Your task to perform on an android device: manage bookmarks in the chrome app Image 0: 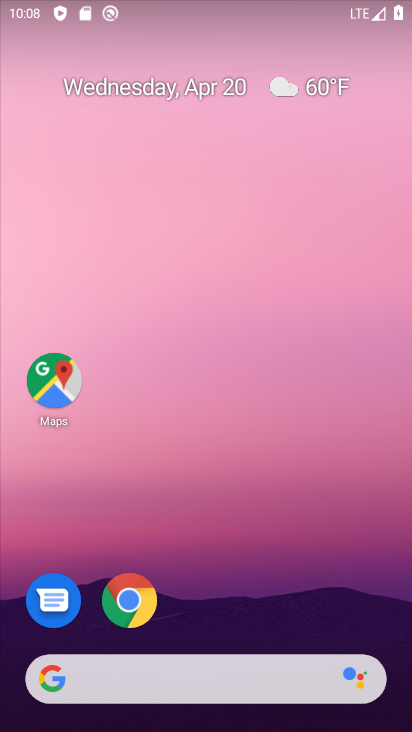
Step 0: click (137, 595)
Your task to perform on an android device: manage bookmarks in the chrome app Image 1: 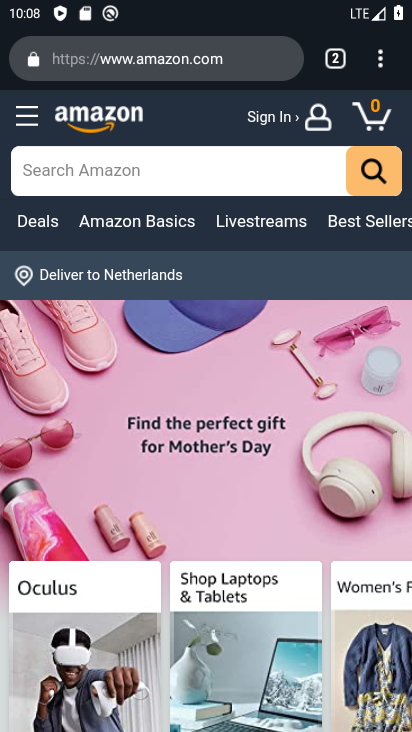
Step 1: click (382, 74)
Your task to perform on an android device: manage bookmarks in the chrome app Image 2: 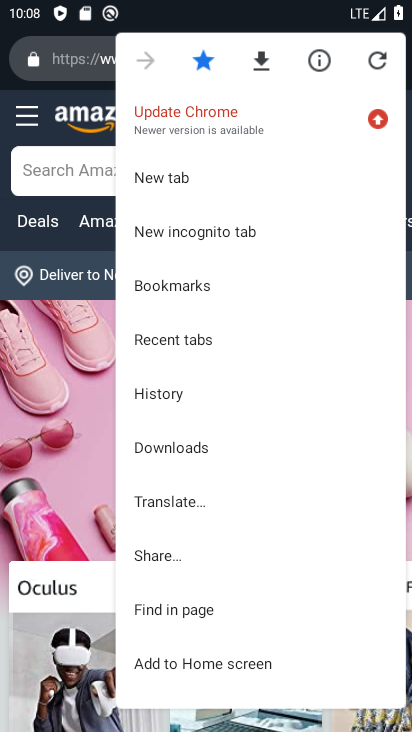
Step 2: click (206, 286)
Your task to perform on an android device: manage bookmarks in the chrome app Image 3: 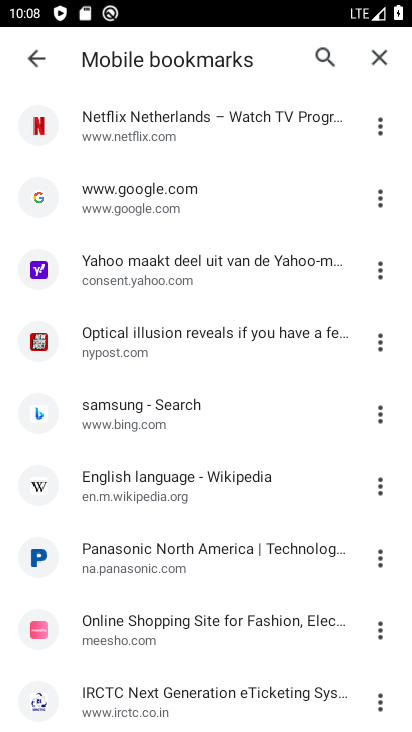
Step 3: click (381, 411)
Your task to perform on an android device: manage bookmarks in the chrome app Image 4: 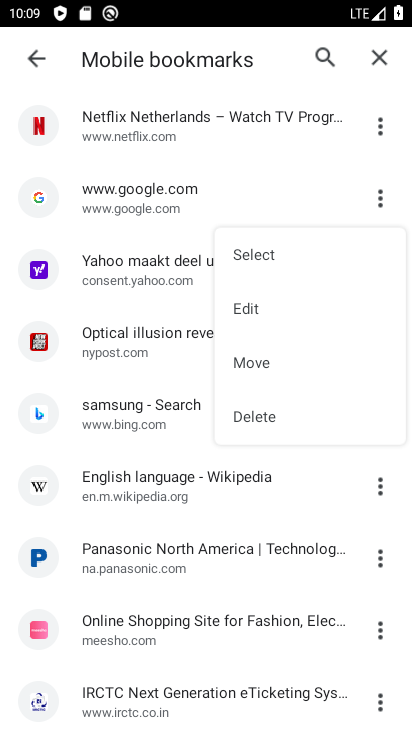
Step 4: click (384, 199)
Your task to perform on an android device: manage bookmarks in the chrome app Image 5: 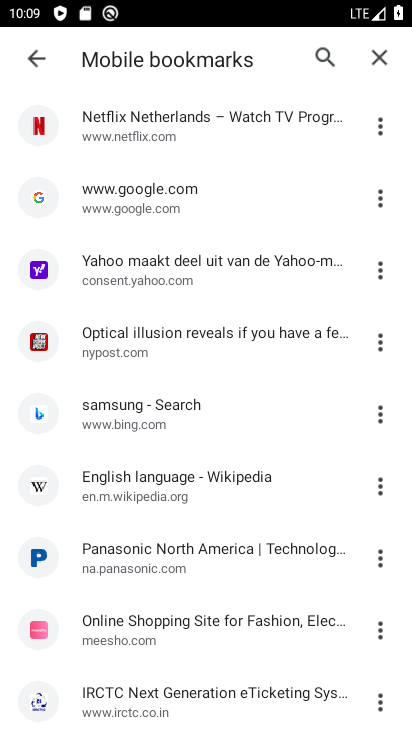
Step 5: click (384, 199)
Your task to perform on an android device: manage bookmarks in the chrome app Image 6: 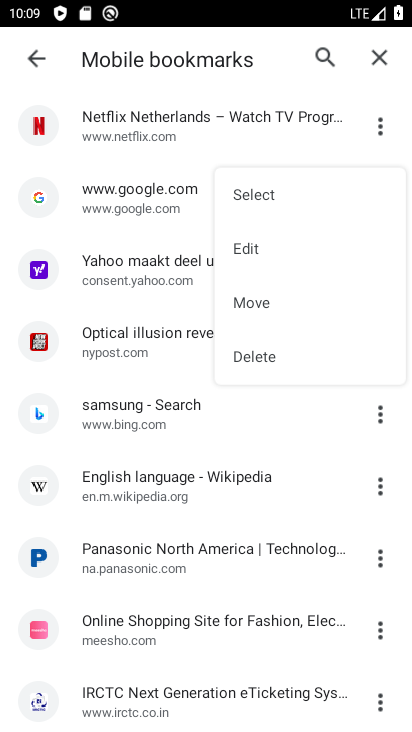
Step 6: click (256, 355)
Your task to perform on an android device: manage bookmarks in the chrome app Image 7: 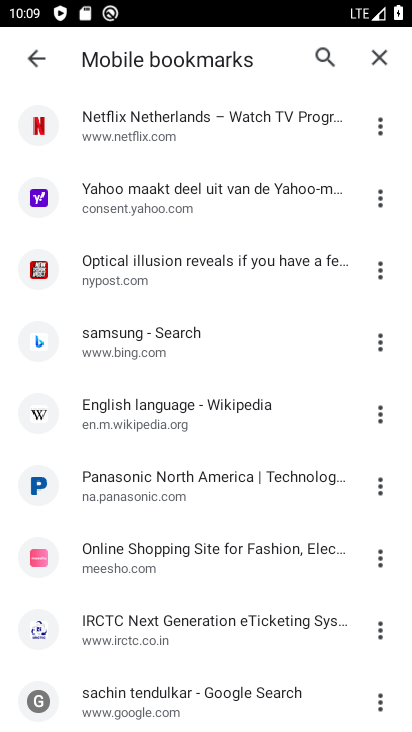
Step 7: task complete